Your task to perform on an android device: Find coffee shops on Maps Image 0: 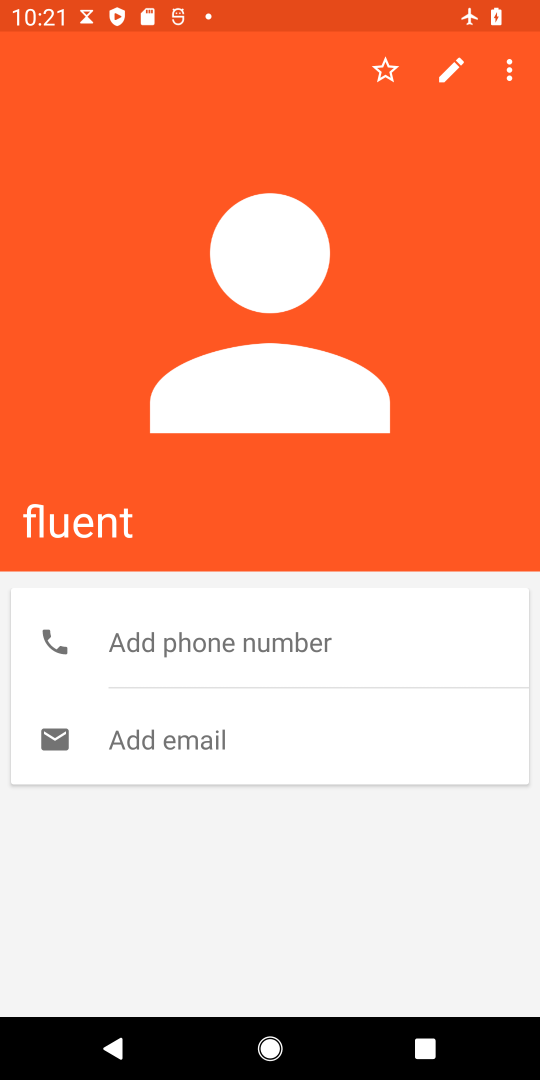
Step 0: press home button
Your task to perform on an android device: Find coffee shops on Maps Image 1: 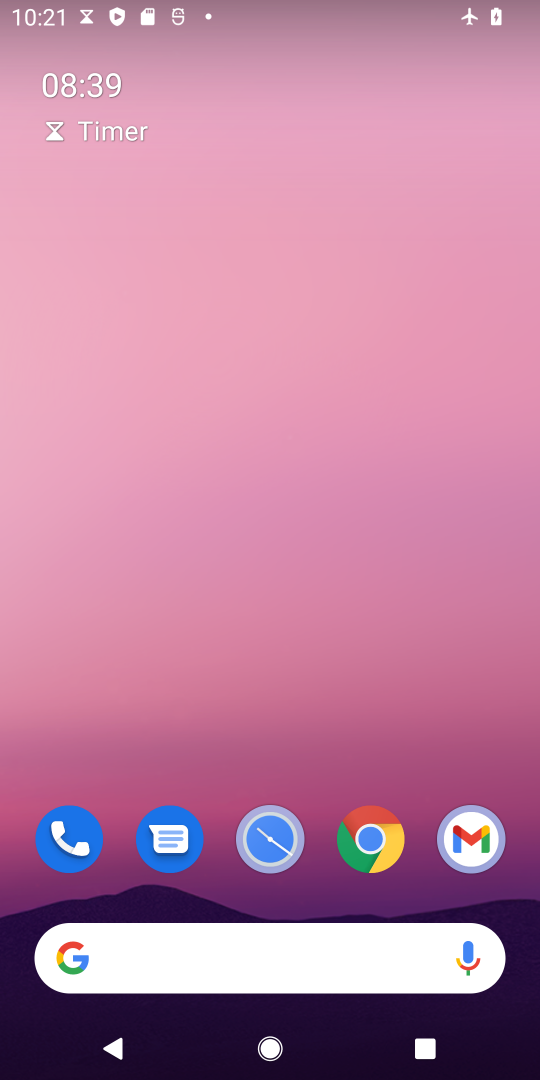
Step 1: drag from (313, 874) to (339, 0)
Your task to perform on an android device: Find coffee shops on Maps Image 2: 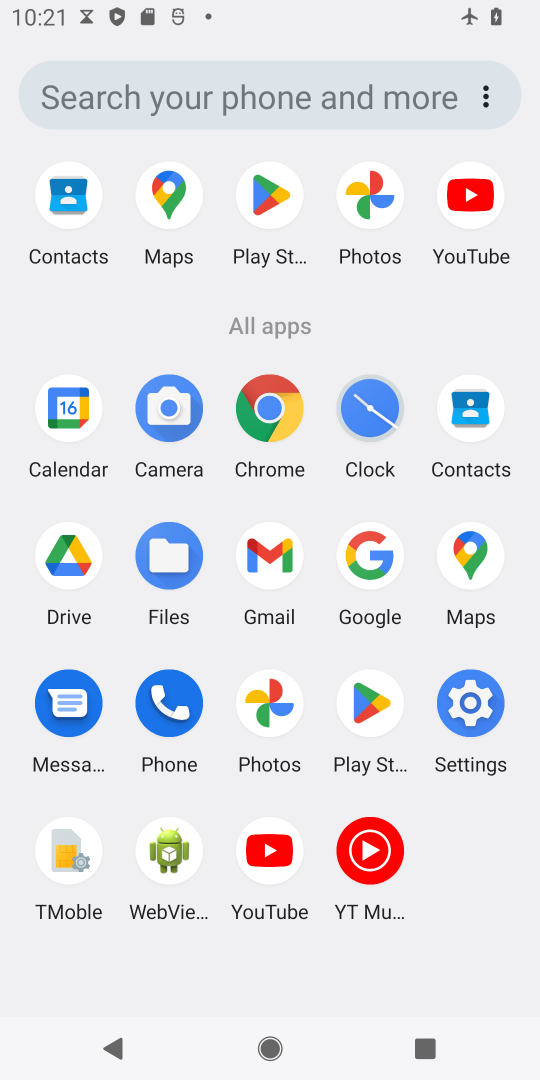
Step 2: click (468, 597)
Your task to perform on an android device: Find coffee shops on Maps Image 3: 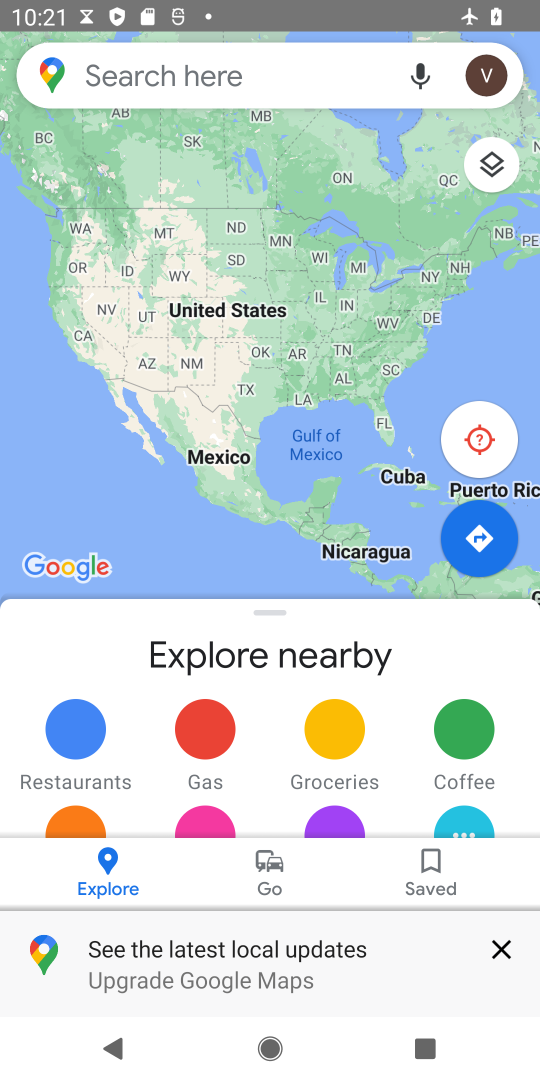
Step 3: click (250, 83)
Your task to perform on an android device: Find coffee shops on Maps Image 4: 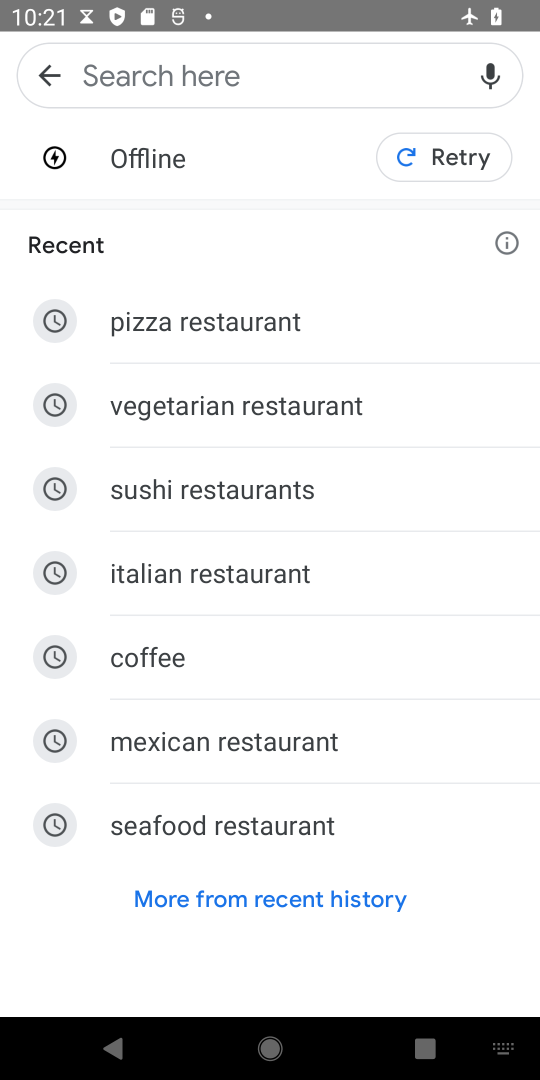
Step 4: type "coffee shops"
Your task to perform on an android device: Find coffee shops on Maps Image 5: 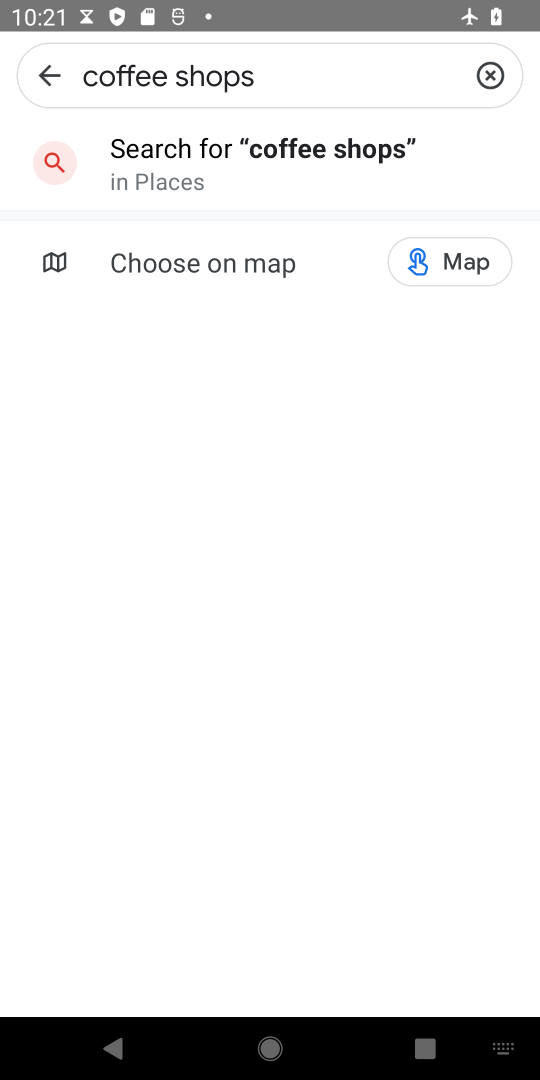
Step 5: click (346, 156)
Your task to perform on an android device: Find coffee shops on Maps Image 6: 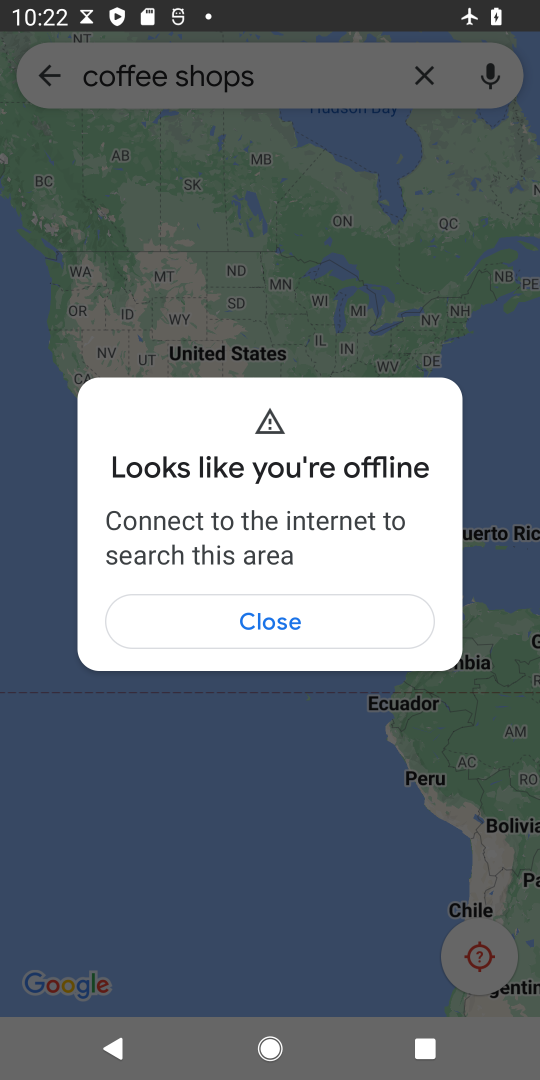
Step 6: click (323, 628)
Your task to perform on an android device: Find coffee shops on Maps Image 7: 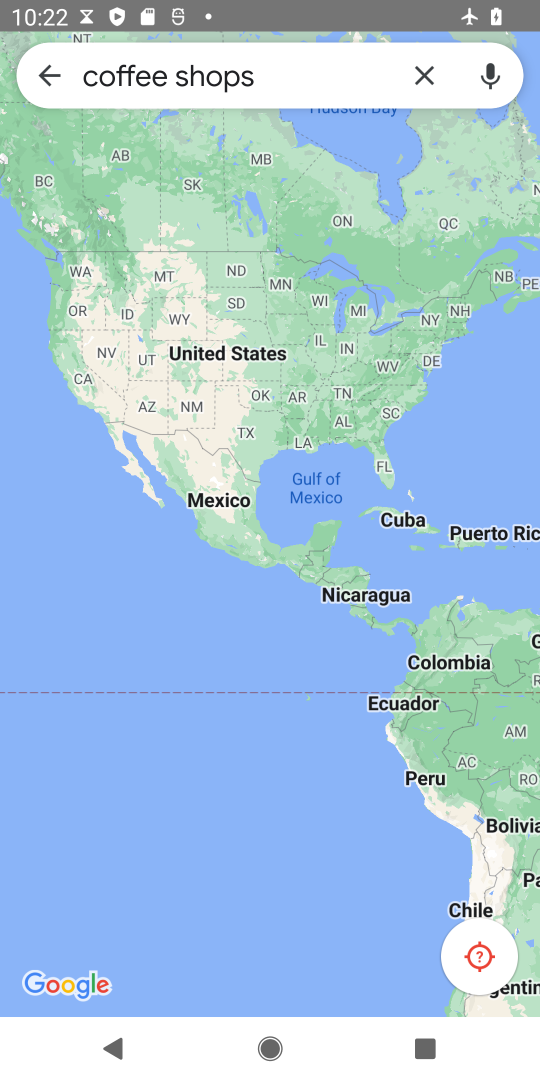
Step 7: task complete